Your task to perform on an android device: delete location history Image 0: 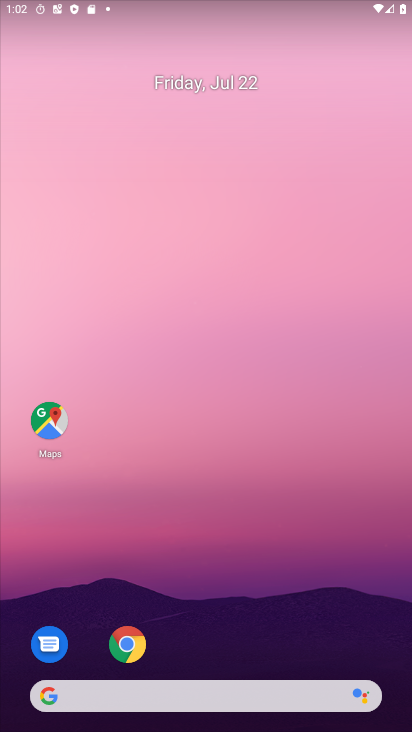
Step 0: drag from (213, 653) to (289, 48)
Your task to perform on an android device: delete location history Image 1: 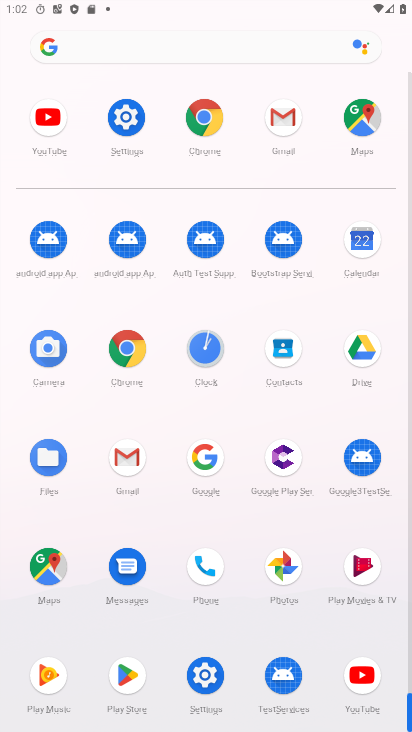
Step 1: click (131, 131)
Your task to perform on an android device: delete location history Image 2: 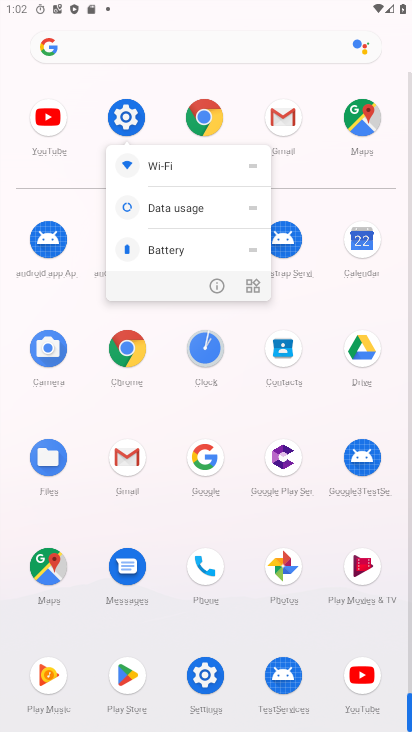
Step 2: click (123, 112)
Your task to perform on an android device: delete location history Image 3: 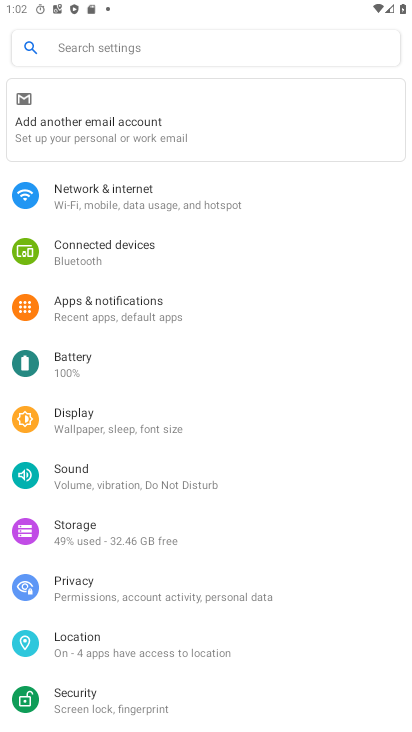
Step 3: click (159, 646)
Your task to perform on an android device: delete location history Image 4: 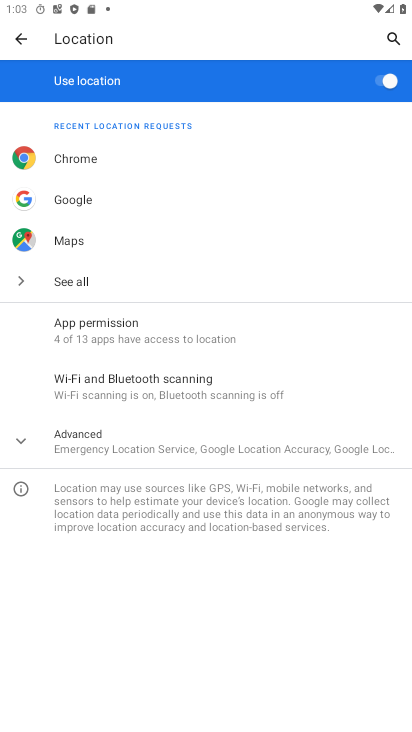
Step 4: click (240, 461)
Your task to perform on an android device: delete location history Image 5: 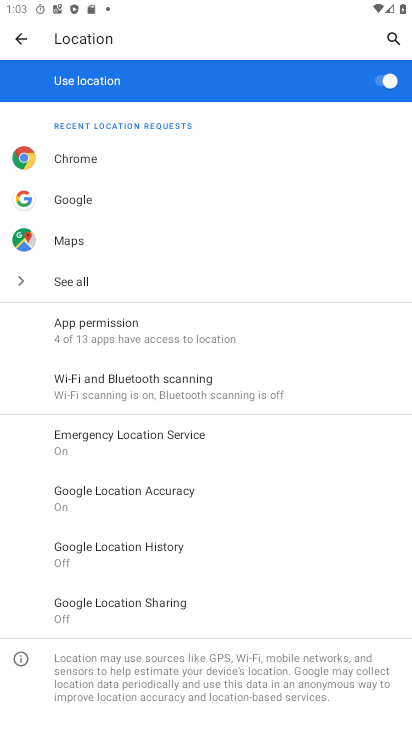
Step 5: click (155, 553)
Your task to perform on an android device: delete location history Image 6: 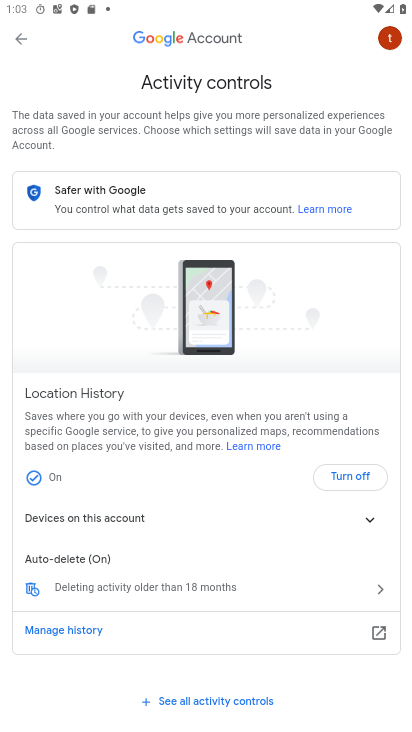
Step 6: click (189, 591)
Your task to perform on an android device: delete location history Image 7: 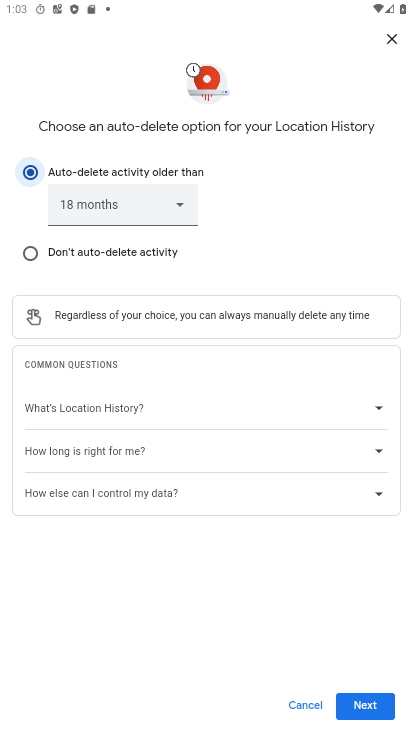
Step 7: click (365, 706)
Your task to perform on an android device: delete location history Image 8: 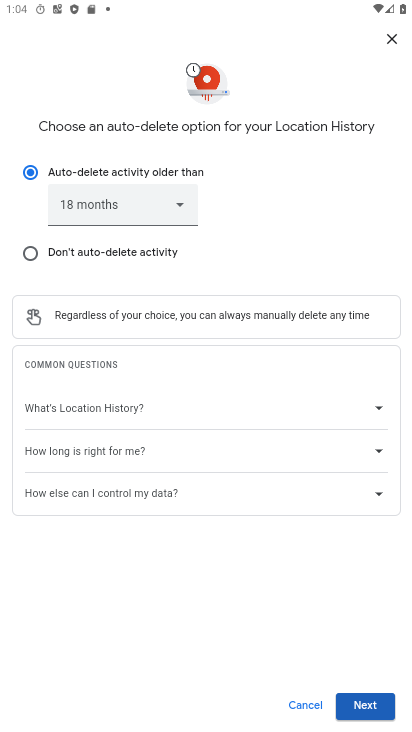
Step 8: click (365, 705)
Your task to perform on an android device: delete location history Image 9: 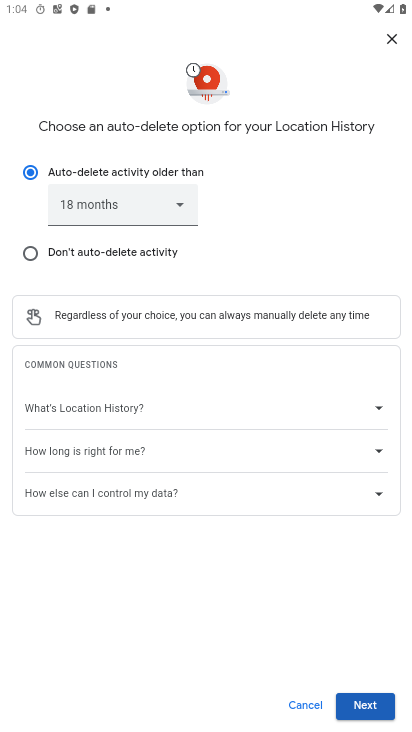
Step 9: click (379, 703)
Your task to perform on an android device: delete location history Image 10: 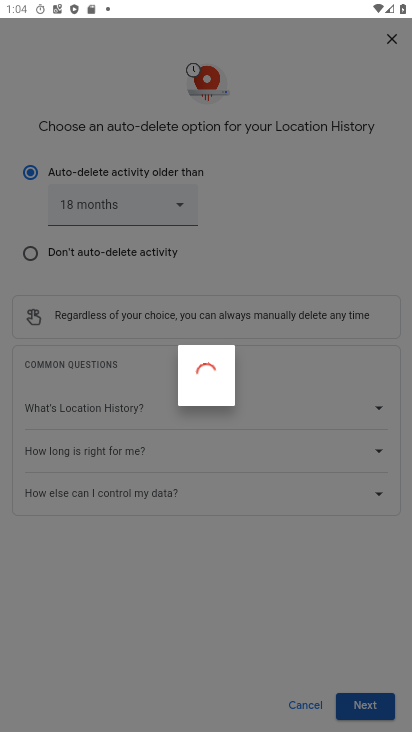
Step 10: click (377, 708)
Your task to perform on an android device: delete location history Image 11: 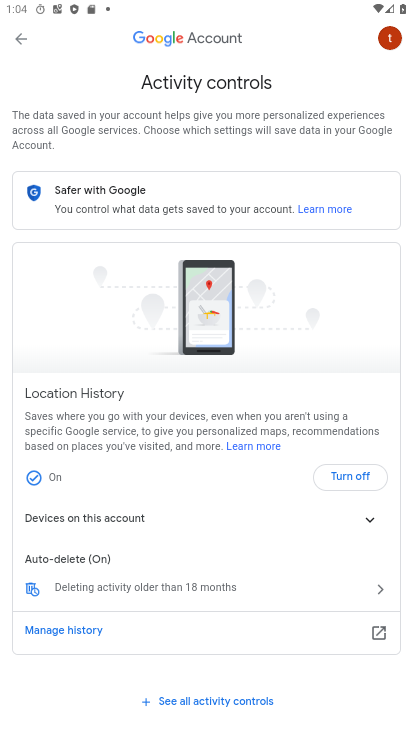
Step 11: task complete